Your task to perform on an android device: toggle javascript in the chrome app Image 0: 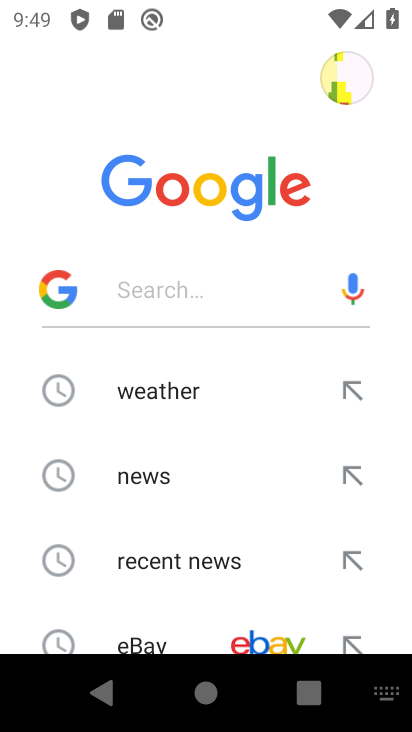
Step 0: press home button
Your task to perform on an android device: toggle javascript in the chrome app Image 1: 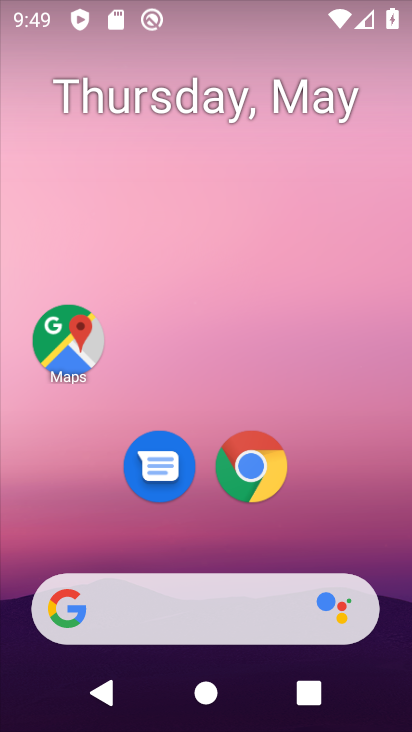
Step 1: click (244, 464)
Your task to perform on an android device: toggle javascript in the chrome app Image 2: 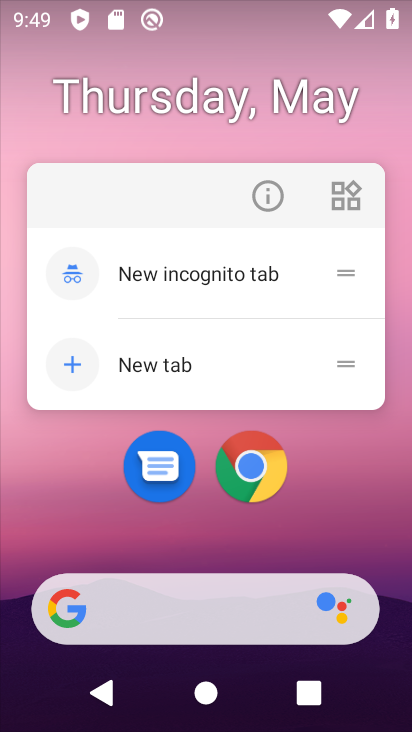
Step 2: click (244, 463)
Your task to perform on an android device: toggle javascript in the chrome app Image 3: 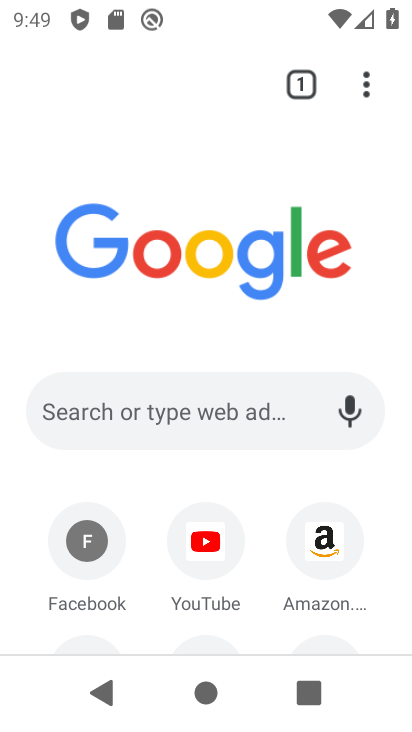
Step 3: click (377, 68)
Your task to perform on an android device: toggle javascript in the chrome app Image 4: 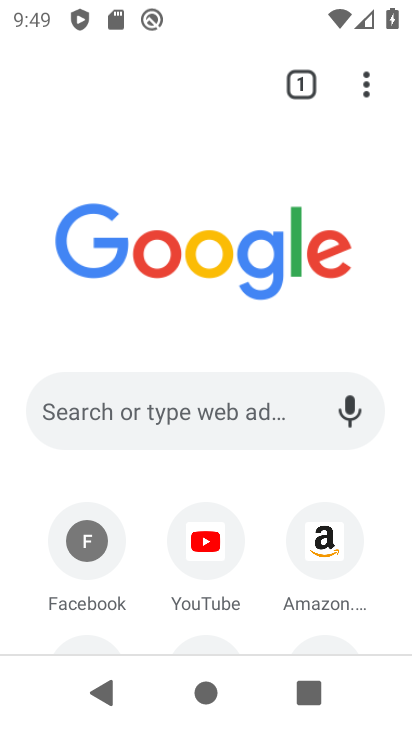
Step 4: click (371, 72)
Your task to perform on an android device: toggle javascript in the chrome app Image 5: 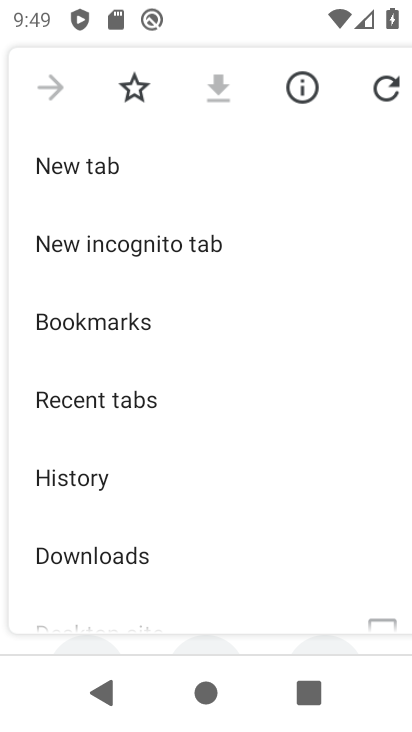
Step 5: drag from (209, 521) to (206, 190)
Your task to perform on an android device: toggle javascript in the chrome app Image 6: 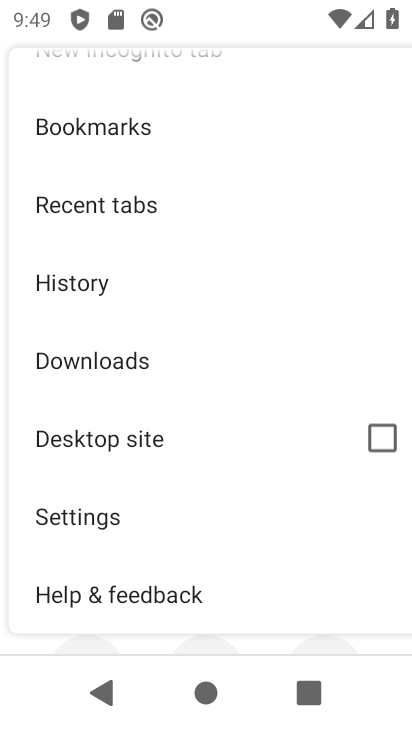
Step 6: click (111, 528)
Your task to perform on an android device: toggle javascript in the chrome app Image 7: 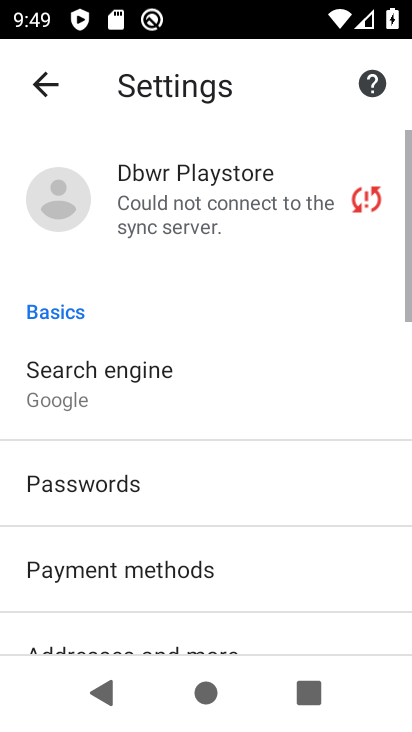
Step 7: drag from (206, 479) to (221, 198)
Your task to perform on an android device: toggle javascript in the chrome app Image 8: 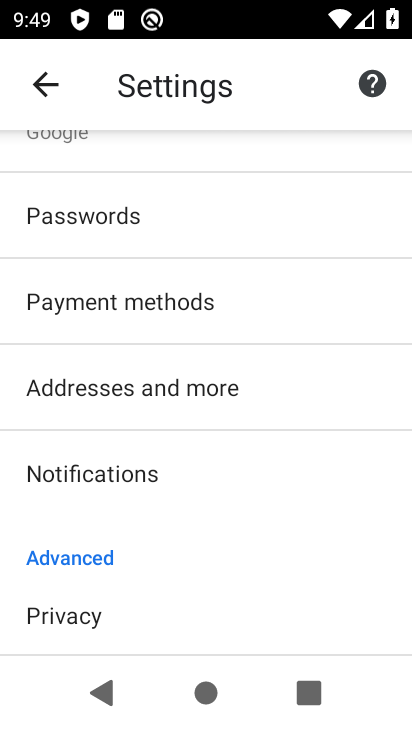
Step 8: click (190, 526)
Your task to perform on an android device: toggle javascript in the chrome app Image 9: 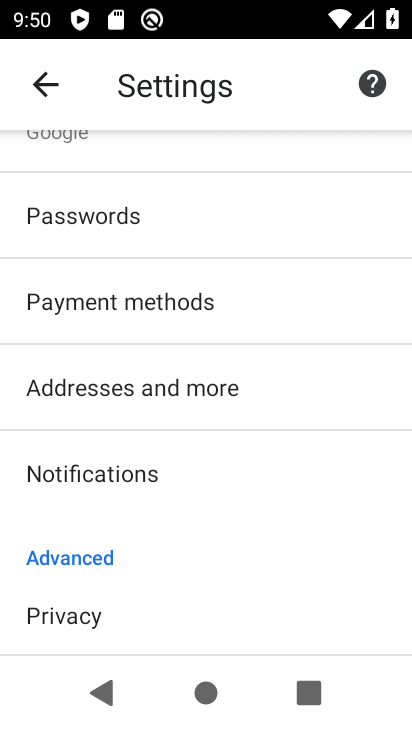
Step 9: drag from (198, 557) to (238, 275)
Your task to perform on an android device: toggle javascript in the chrome app Image 10: 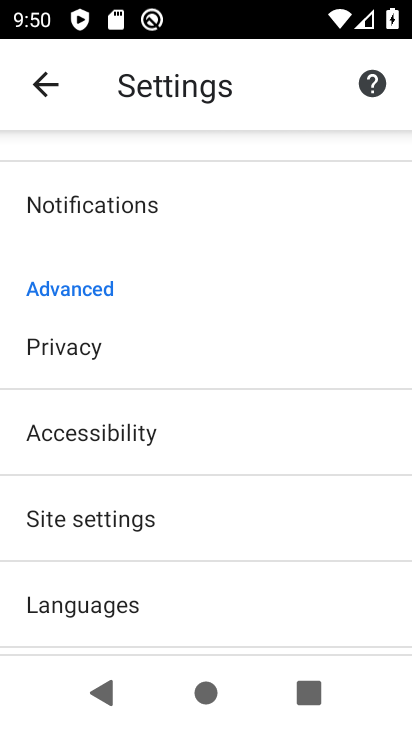
Step 10: drag from (162, 591) to (214, 375)
Your task to perform on an android device: toggle javascript in the chrome app Image 11: 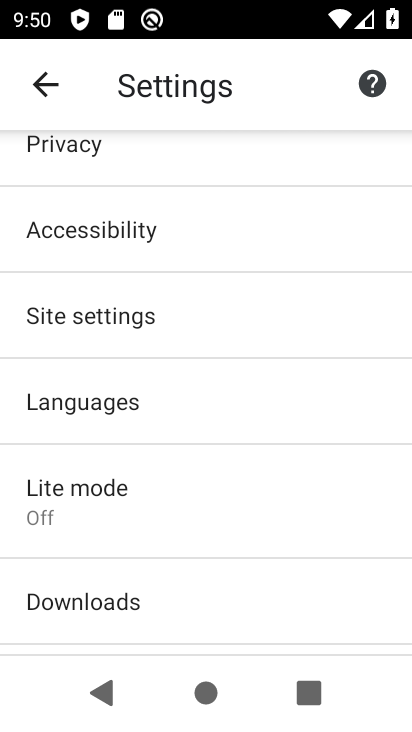
Step 11: click (144, 307)
Your task to perform on an android device: toggle javascript in the chrome app Image 12: 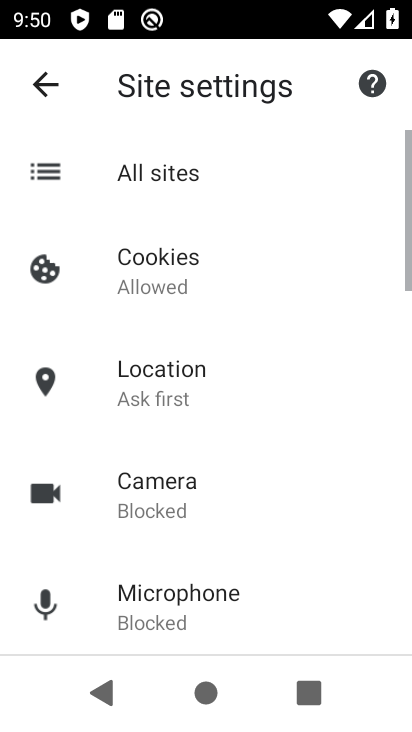
Step 12: drag from (239, 518) to (270, 180)
Your task to perform on an android device: toggle javascript in the chrome app Image 13: 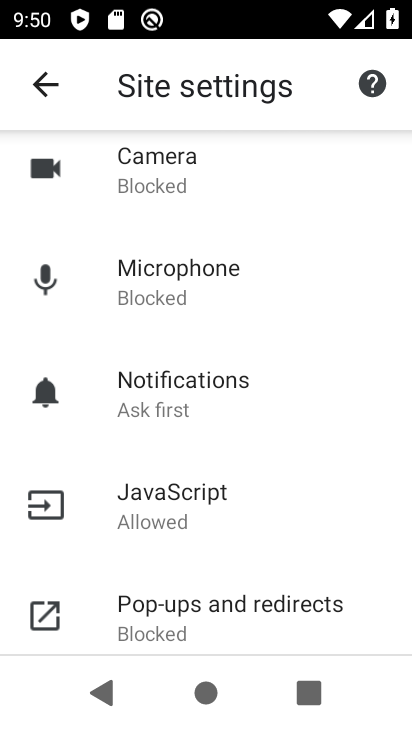
Step 13: click (173, 488)
Your task to perform on an android device: toggle javascript in the chrome app Image 14: 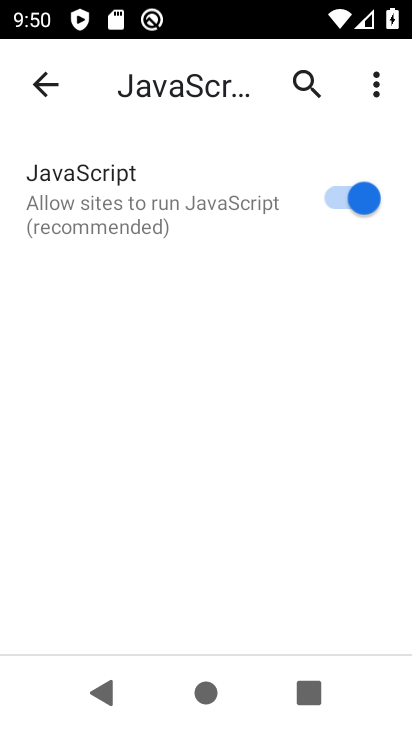
Step 14: click (343, 193)
Your task to perform on an android device: toggle javascript in the chrome app Image 15: 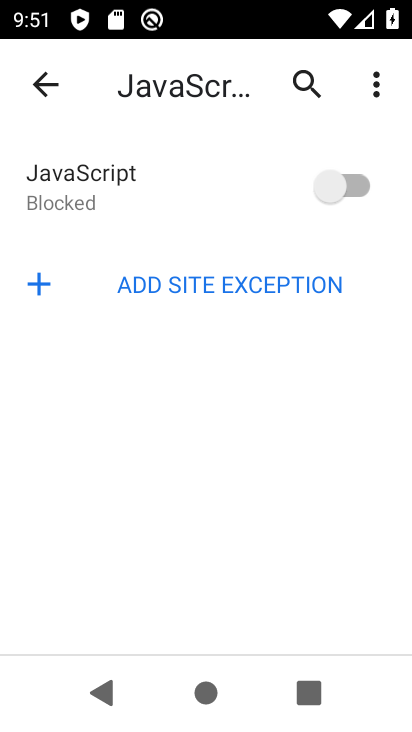
Step 15: task complete